Your task to perform on an android device: change the upload size in google photos Image 0: 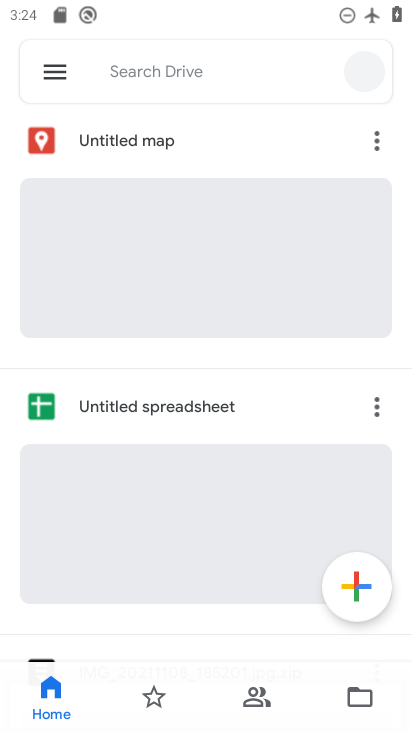
Step 0: press home button
Your task to perform on an android device: change the upload size in google photos Image 1: 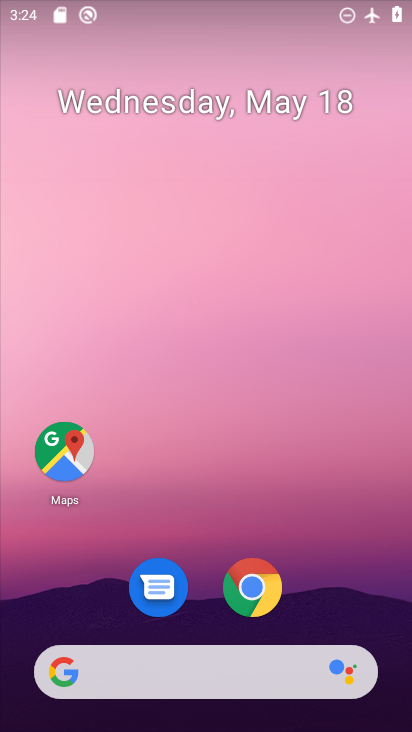
Step 1: drag from (189, 662) to (197, 45)
Your task to perform on an android device: change the upload size in google photos Image 2: 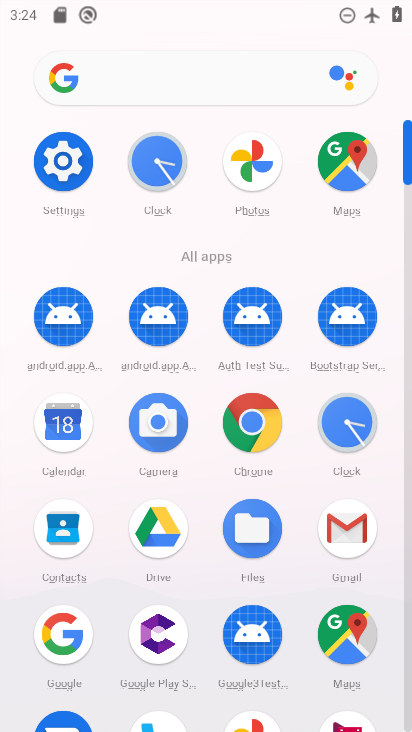
Step 2: click (243, 150)
Your task to perform on an android device: change the upload size in google photos Image 3: 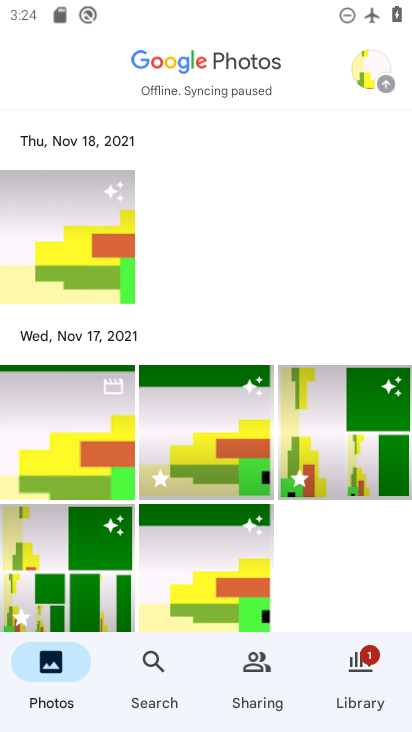
Step 3: click (364, 68)
Your task to perform on an android device: change the upload size in google photos Image 4: 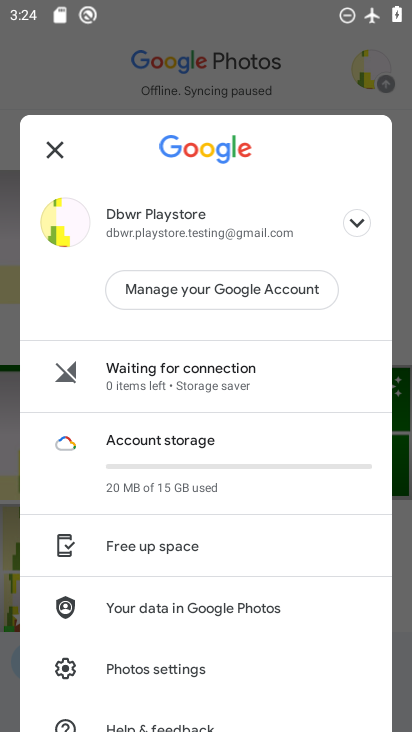
Step 4: click (156, 664)
Your task to perform on an android device: change the upload size in google photos Image 5: 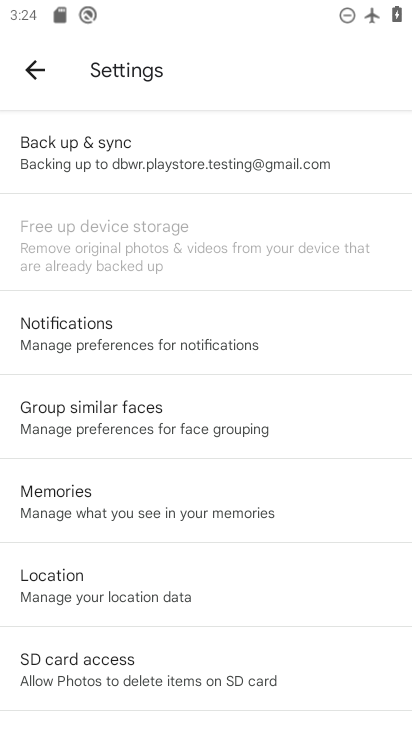
Step 5: click (145, 169)
Your task to perform on an android device: change the upload size in google photos Image 6: 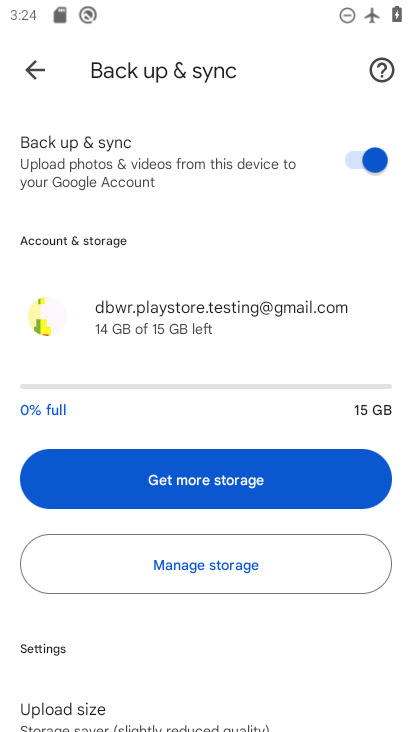
Step 6: drag from (229, 619) to (229, 196)
Your task to perform on an android device: change the upload size in google photos Image 7: 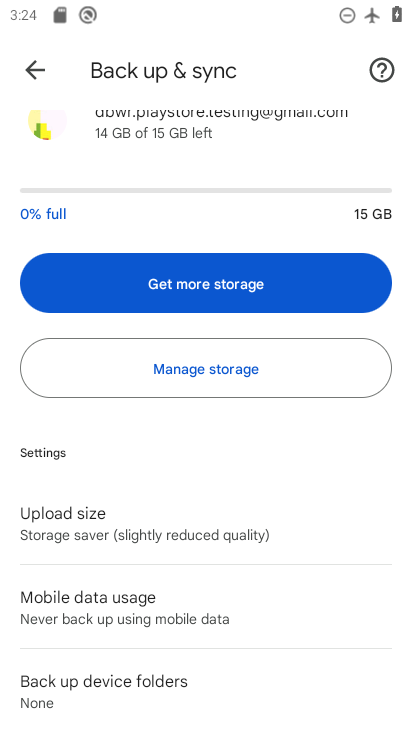
Step 7: click (188, 525)
Your task to perform on an android device: change the upload size in google photos Image 8: 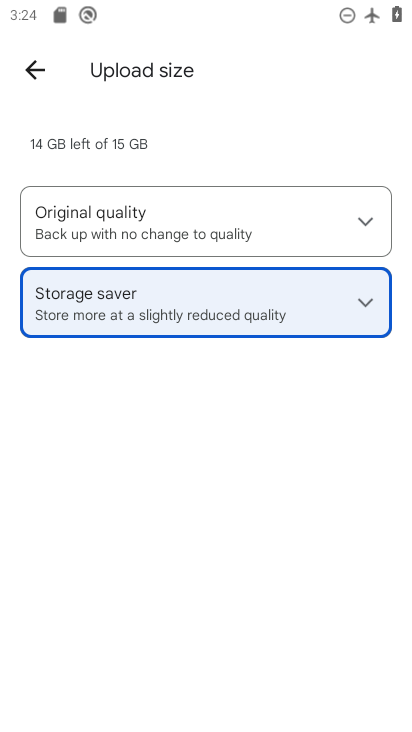
Step 8: click (364, 299)
Your task to perform on an android device: change the upload size in google photos Image 9: 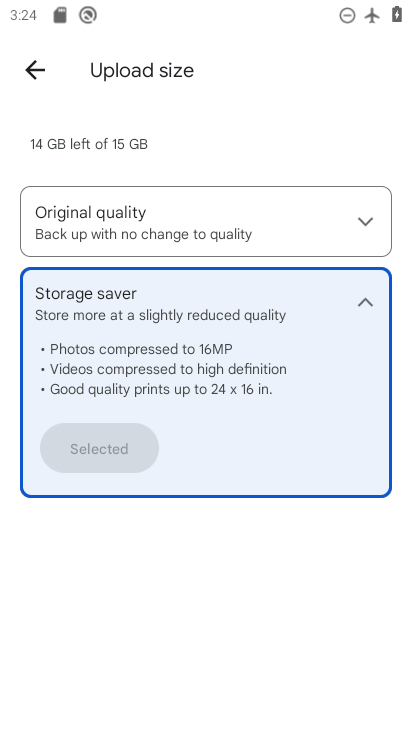
Step 9: click (362, 228)
Your task to perform on an android device: change the upload size in google photos Image 10: 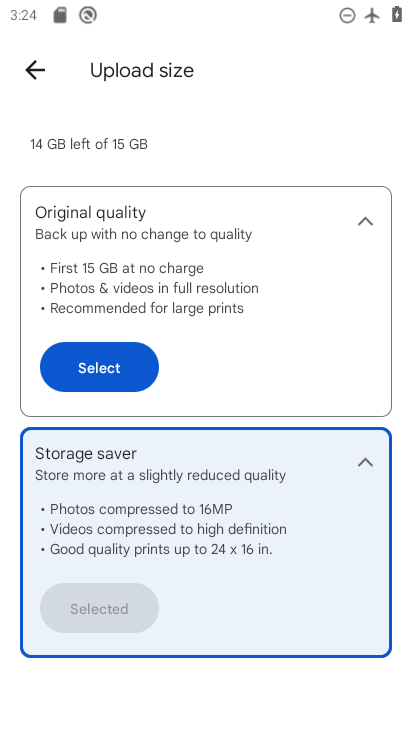
Step 10: click (84, 368)
Your task to perform on an android device: change the upload size in google photos Image 11: 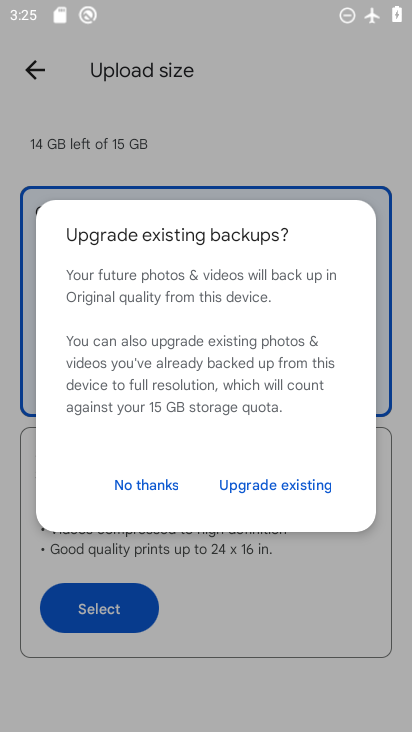
Step 11: click (151, 483)
Your task to perform on an android device: change the upload size in google photos Image 12: 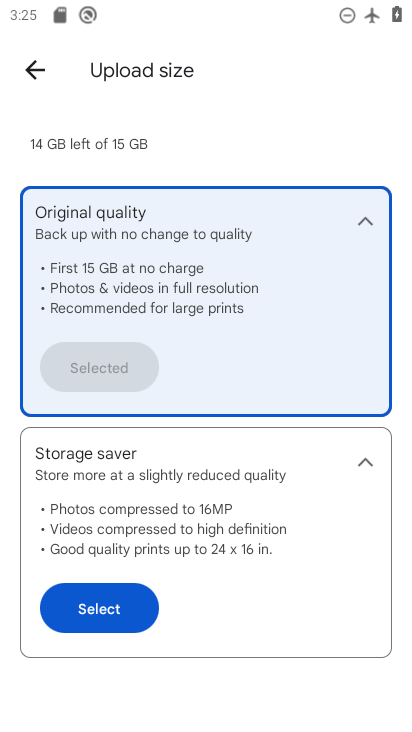
Step 12: task complete